Your task to perform on an android device: Go to Google maps Image 0: 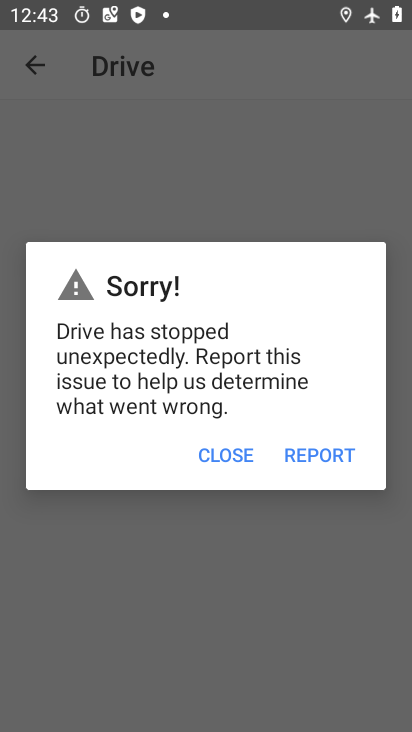
Step 0: press home button
Your task to perform on an android device: Go to Google maps Image 1: 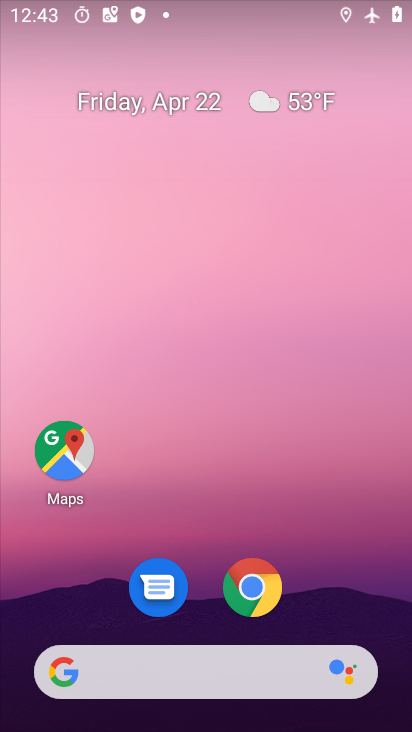
Step 1: drag from (168, 660) to (326, 6)
Your task to perform on an android device: Go to Google maps Image 2: 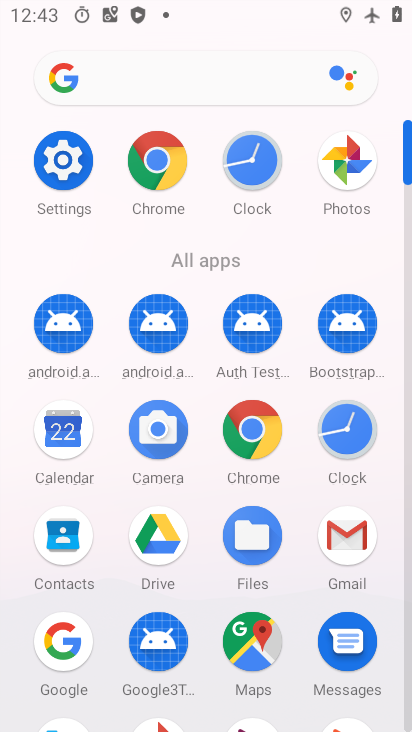
Step 2: click (254, 659)
Your task to perform on an android device: Go to Google maps Image 3: 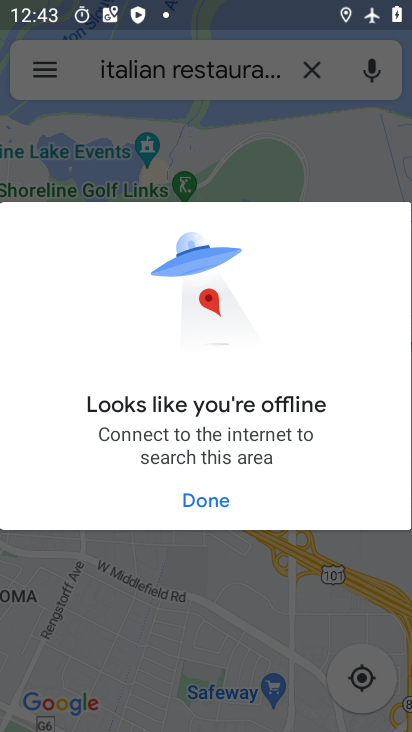
Step 3: press home button
Your task to perform on an android device: Go to Google maps Image 4: 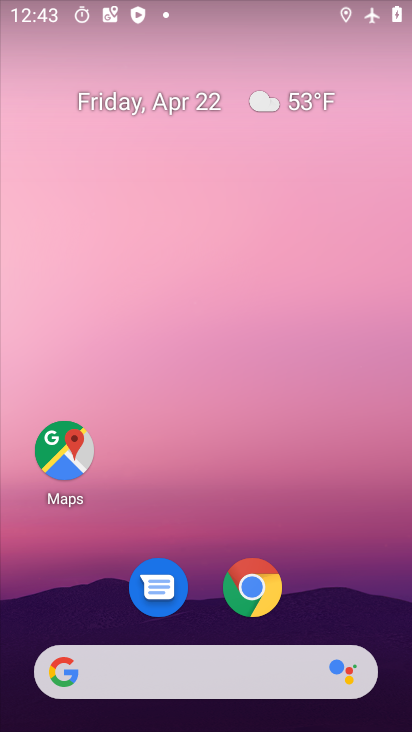
Step 4: drag from (151, 681) to (242, 92)
Your task to perform on an android device: Go to Google maps Image 5: 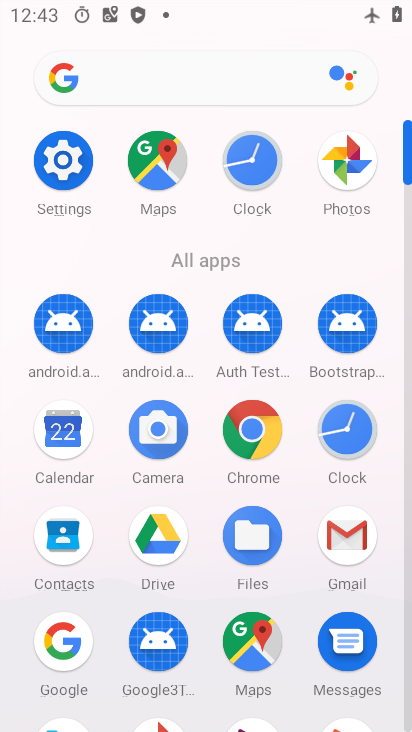
Step 5: click (64, 169)
Your task to perform on an android device: Go to Google maps Image 6: 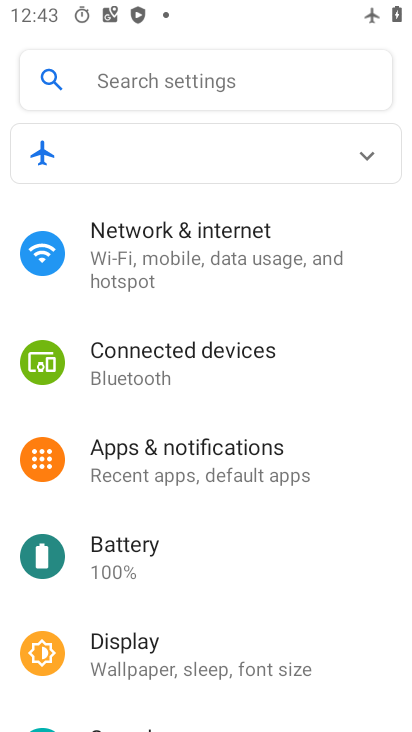
Step 6: click (220, 246)
Your task to perform on an android device: Go to Google maps Image 7: 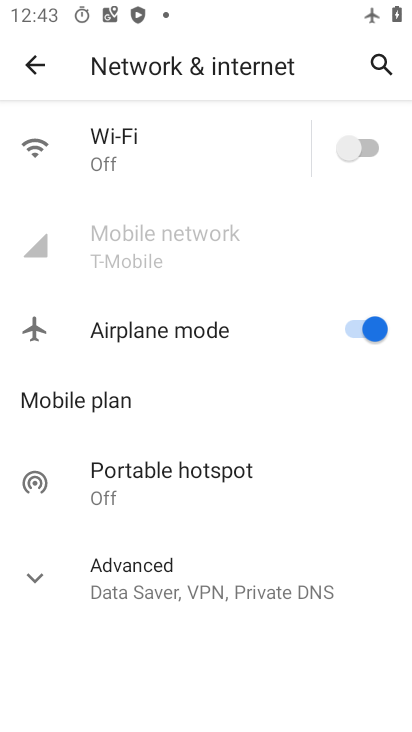
Step 7: click (369, 147)
Your task to perform on an android device: Go to Google maps Image 8: 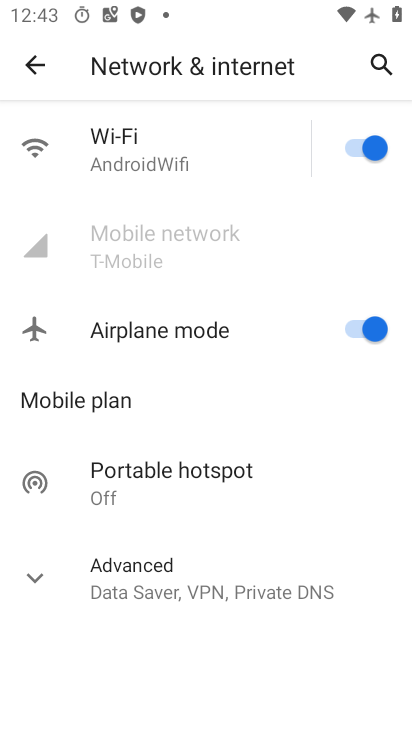
Step 8: task complete